Your task to perform on an android device: Search for Mexican restaurants on Maps Image 0: 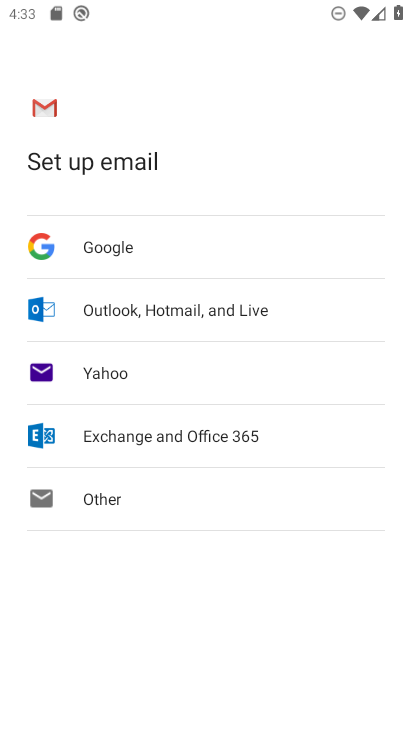
Step 0: press home button
Your task to perform on an android device: Search for Mexican restaurants on Maps Image 1: 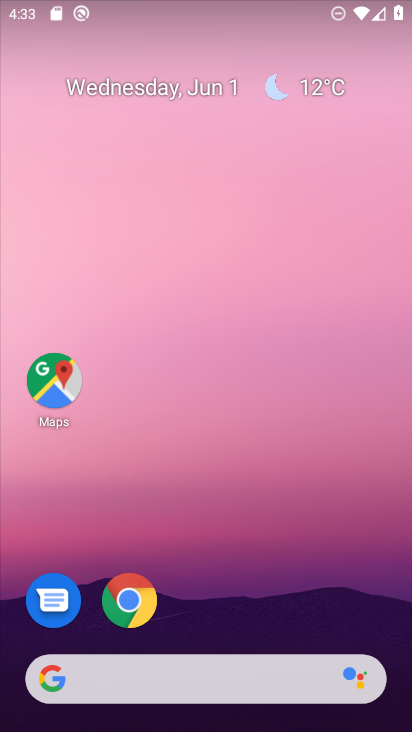
Step 1: click (55, 378)
Your task to perform on an android device: Search for Mexican restaurants on Maps Image 2: 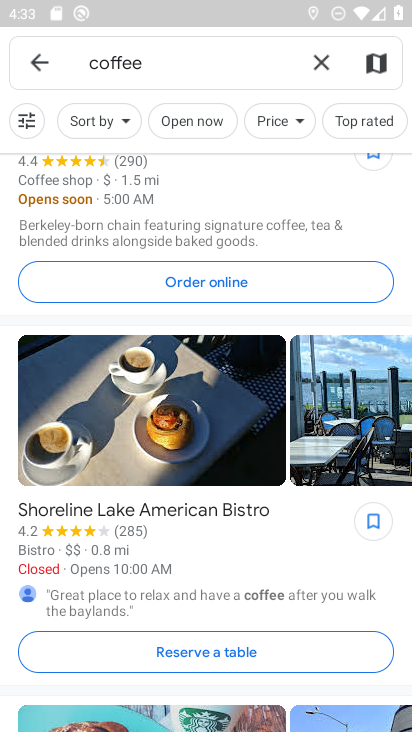
Step 2: click (329, 57)
Your task to perform on an android device: Search for Mexican restaurants on Maps Image 3: 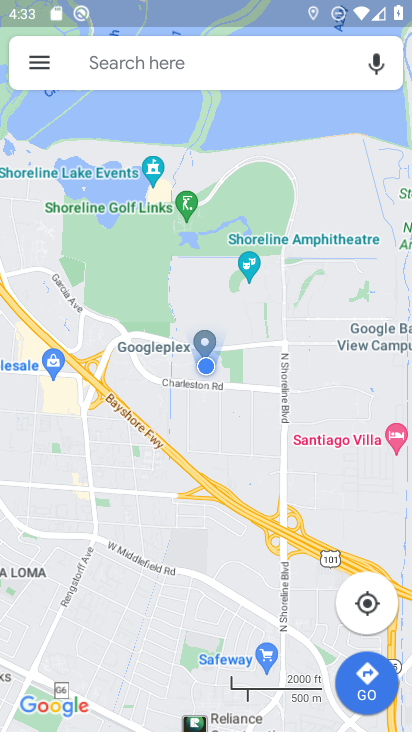
Step 3: click (146, 58)
Your task to perform on an android device: Search for Mexican restaurants on Maps Image 4: 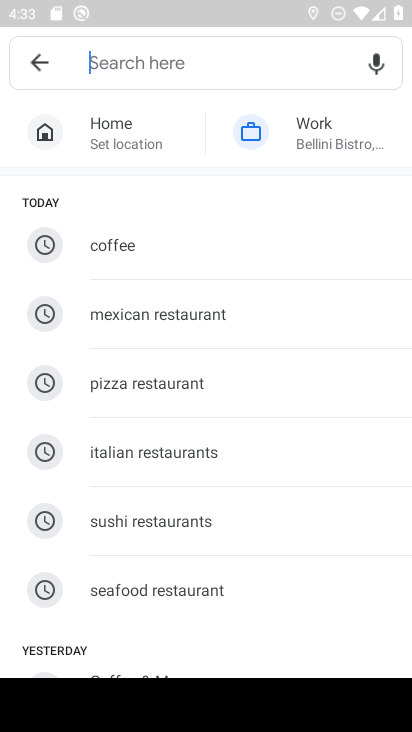
Step 4: type "mexican restaurants"
Your task to perform on an android device: Search for Mexican restaurants on Maps Image 5: 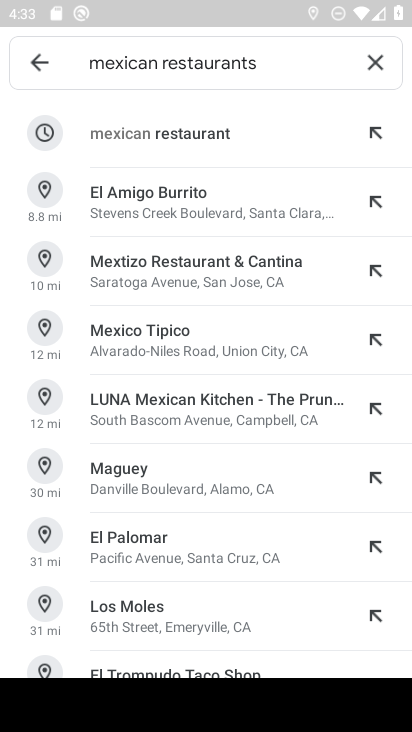
Step 5: click (122, 127)
Your task to perform on an android device: Search for Mexican restaurants on Maps Image 6: 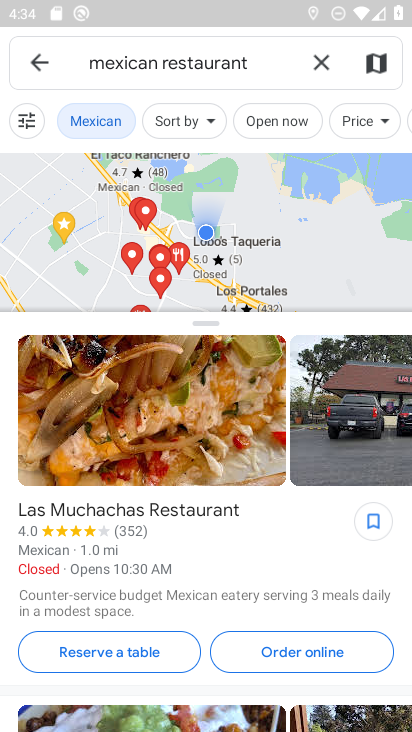
Step 6: task complete